Your task to perform on an android device: Show me productivity apps on the Play Store Image 0: 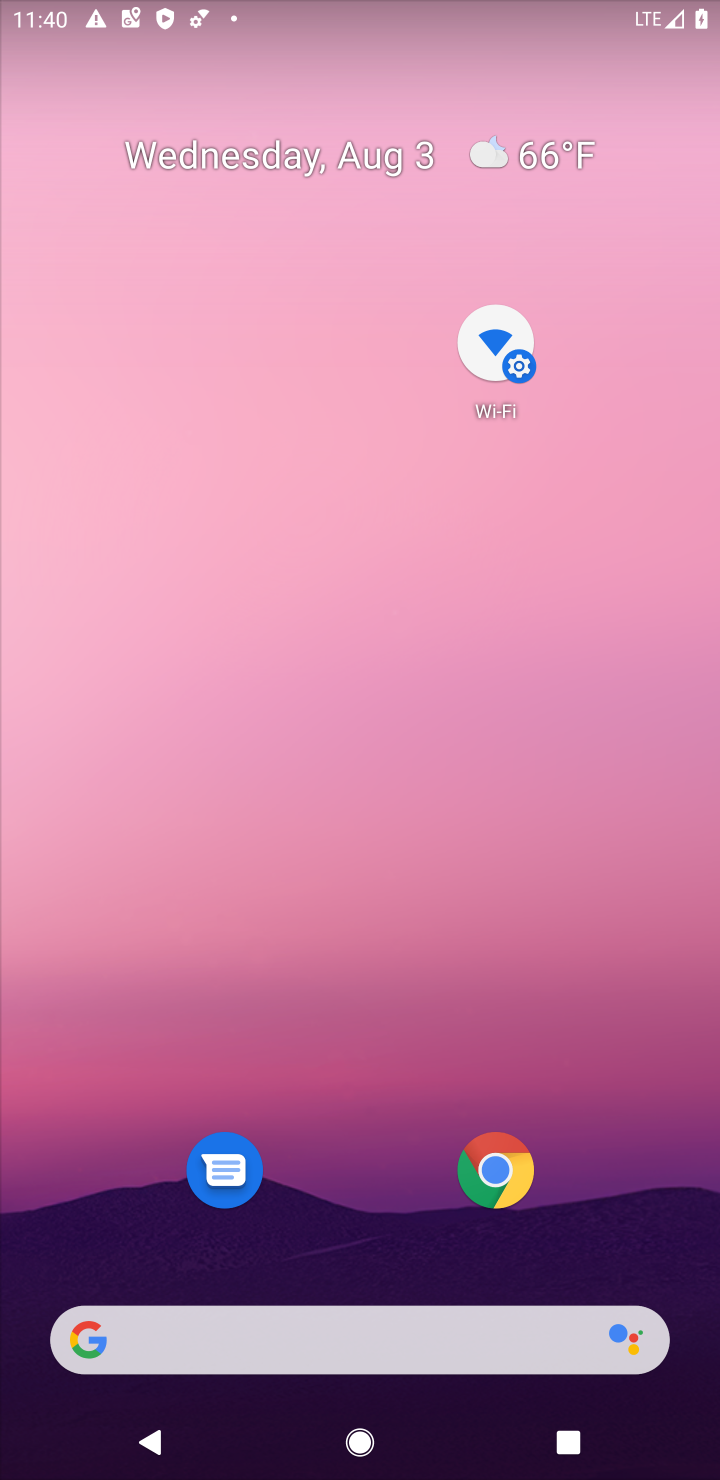
Step 0: drag from (328, 648) to (313, 364)
Your task to perform on an android device: Show me productivity apps on the Play Store Image 1: 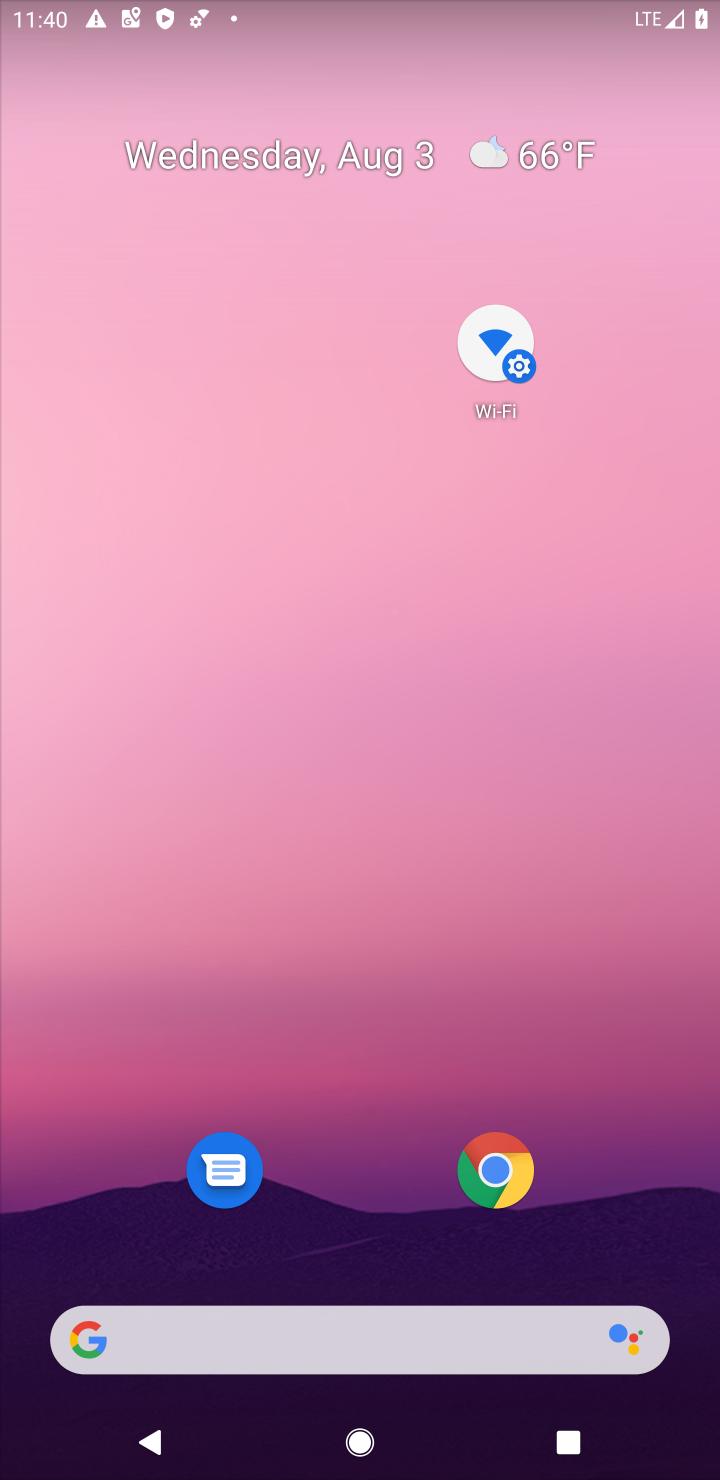
Step 1: drag from (303, 1140) to (323, 303)
Your task to perform on an android device: Show me productivity apps on the Play Store Image 2: 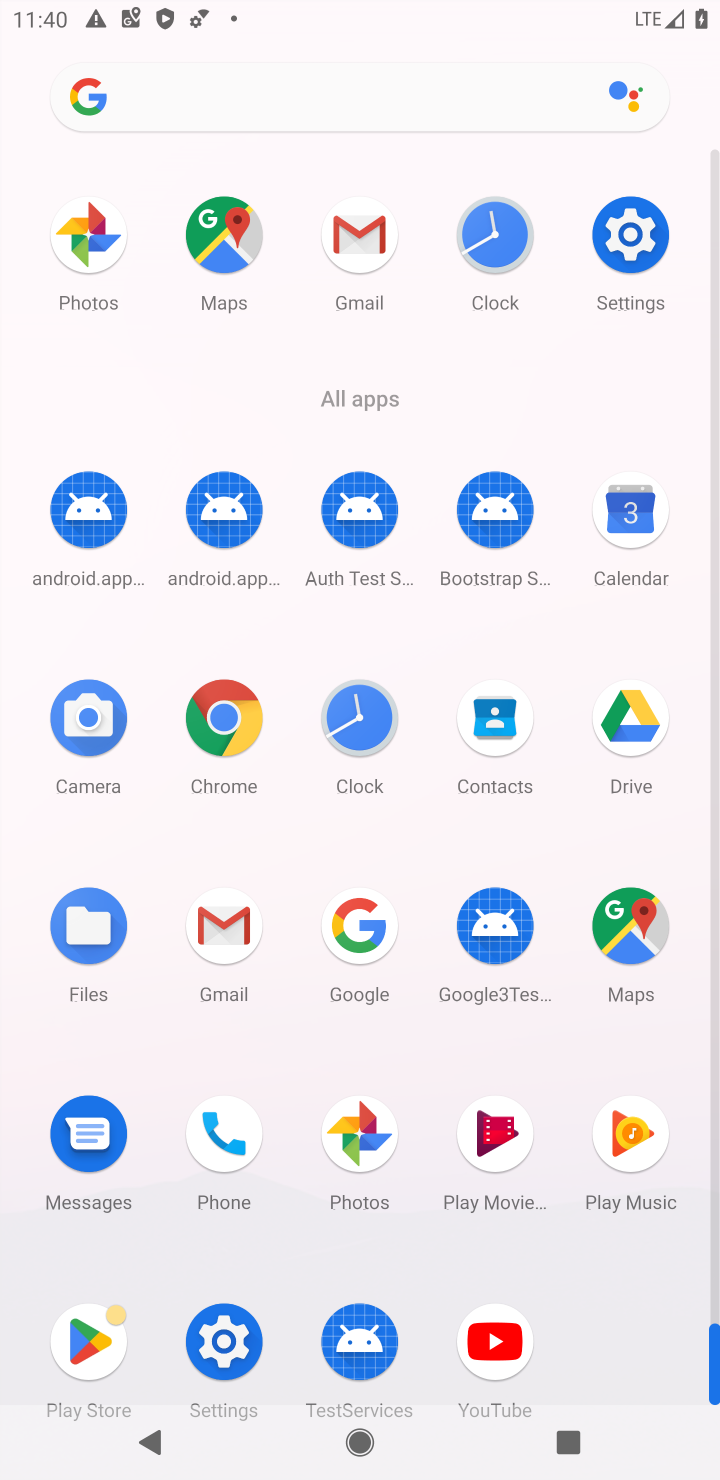
Step 2: click (71, 1346)
Your task to perform on an android device: Show me productivity apps on the Play Store Image 3: 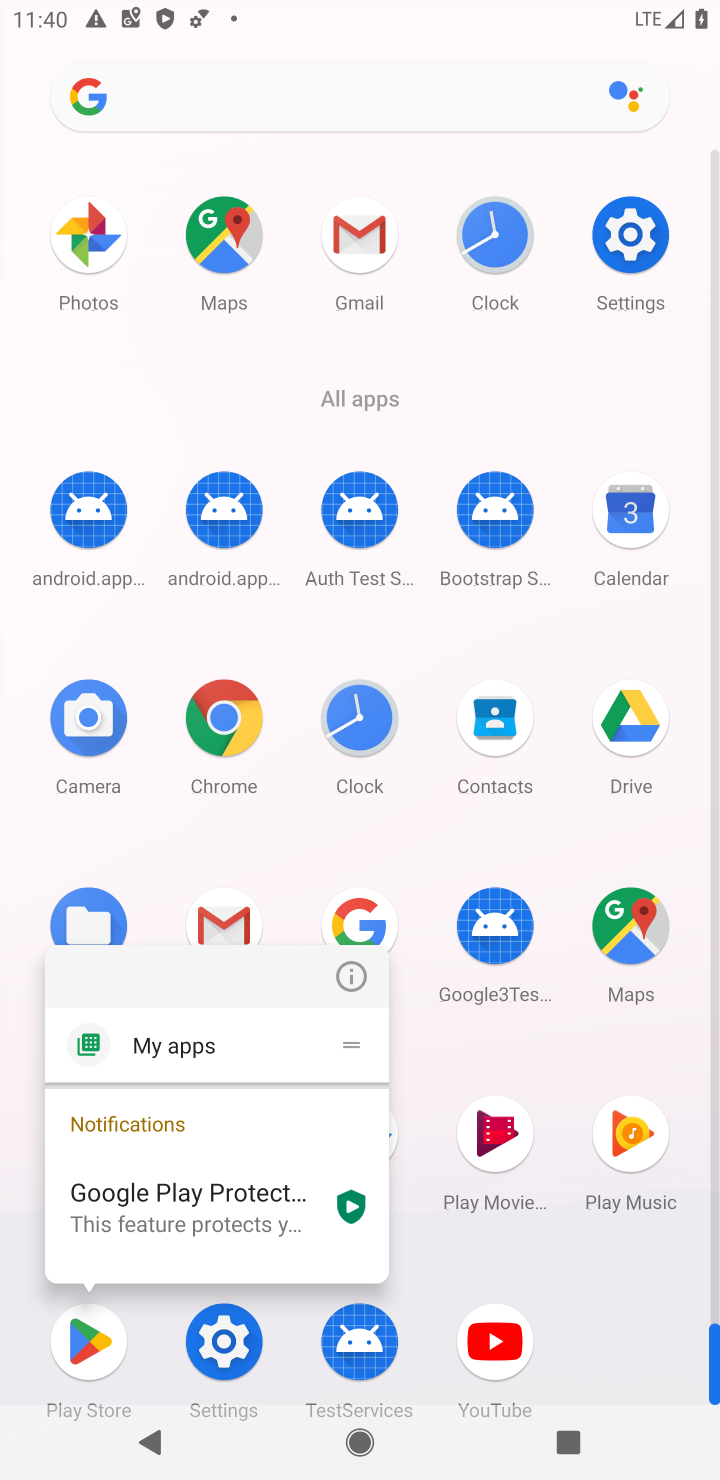
Step 3: click (339, 980)
Your task to perform on an android device: Show me productivity apps on the Play Store Image 4: 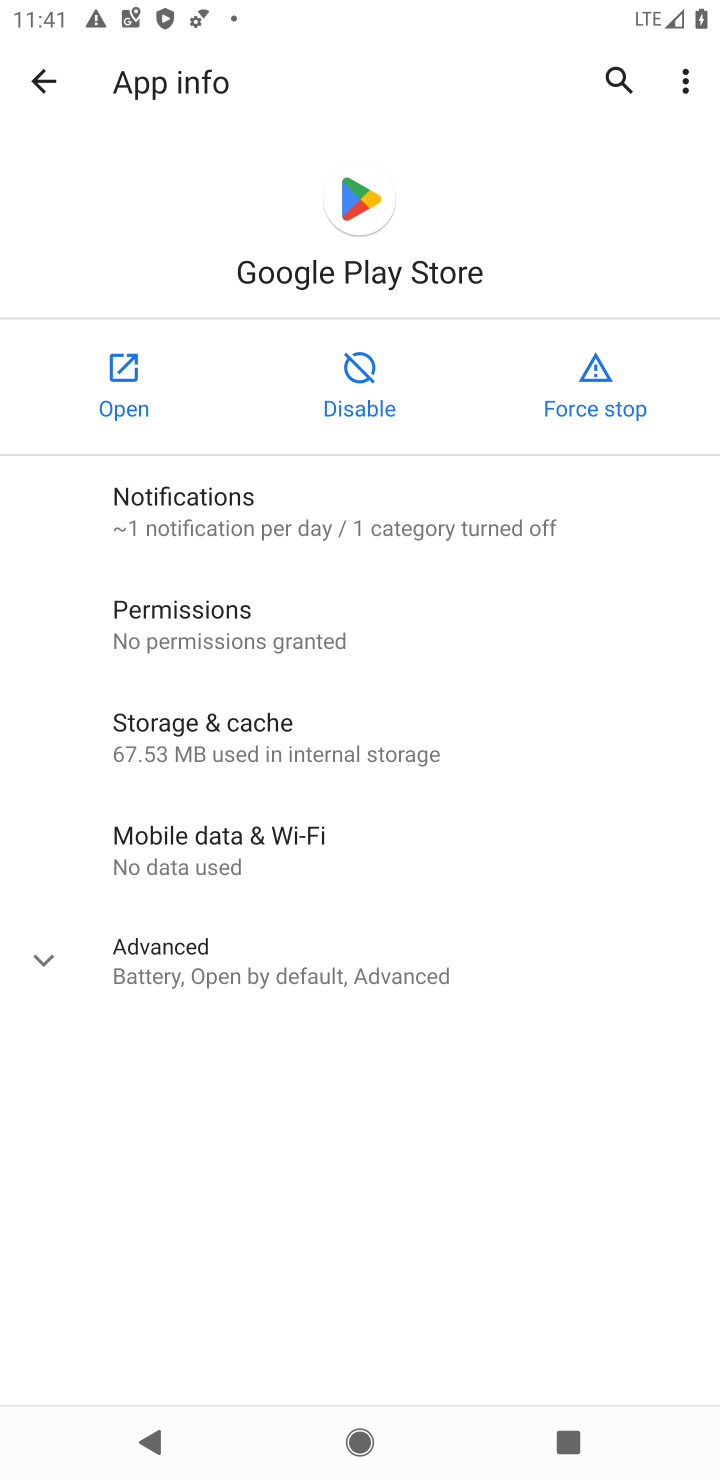
Step 4: click (104, 384)
Your task to perform on an android device: Show me productivity apps on the Play Store Image 5: 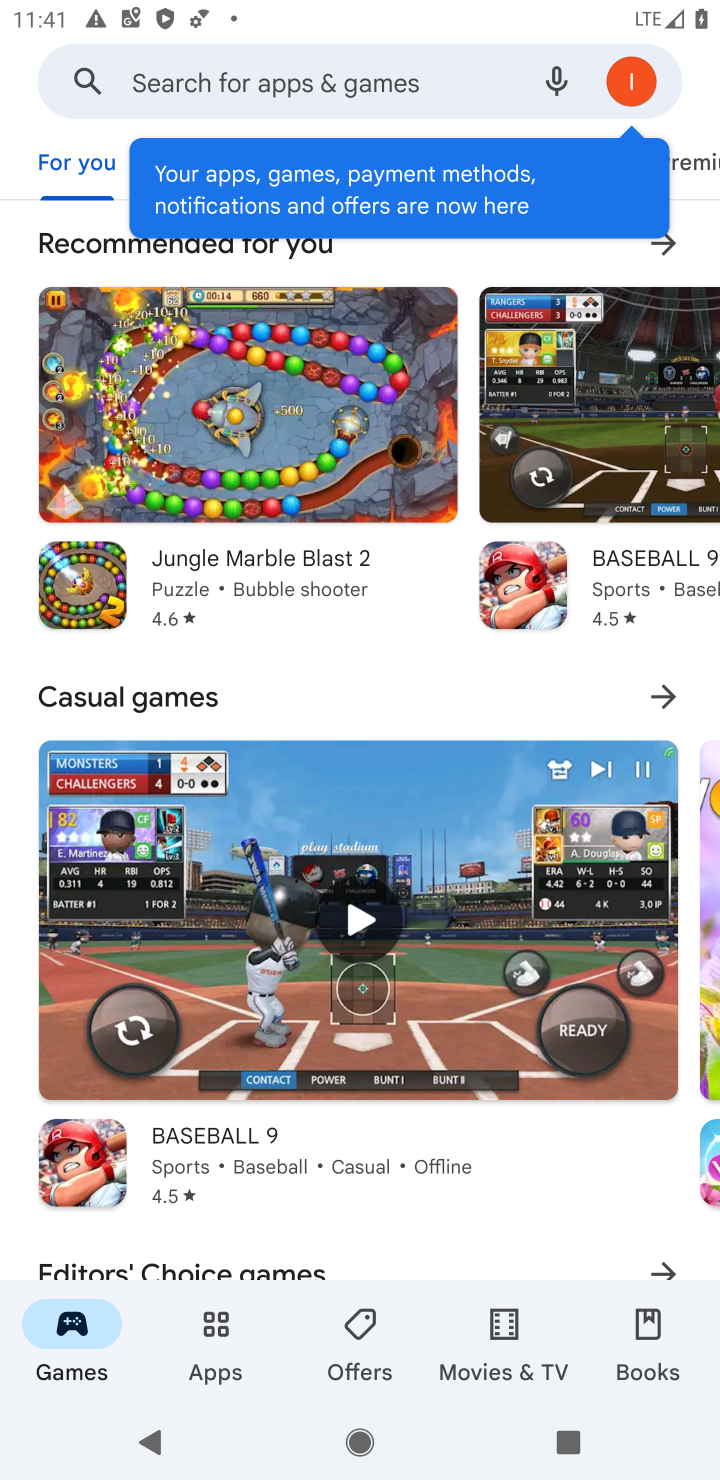
Step 5: task complete